Your task to perform on an android device: Open Android settings Image 0: 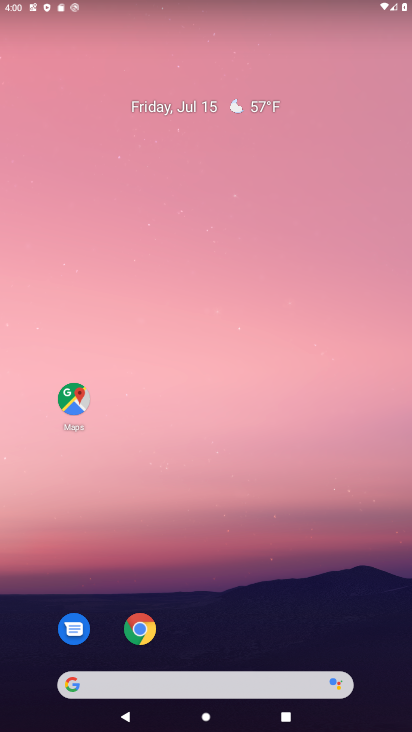
Step 0: press home button
Your task to perform on an android device: Open Android settings Image 1: 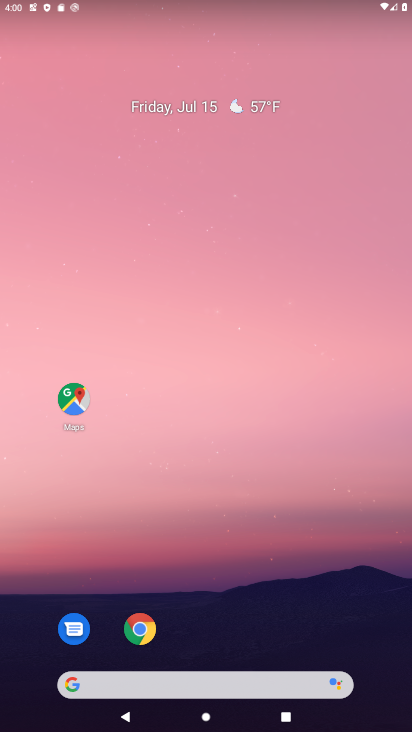
Step 1: drag from (280, 562) to (317, 56)
Your task to perform on an android device: Open Android settings Image 2: 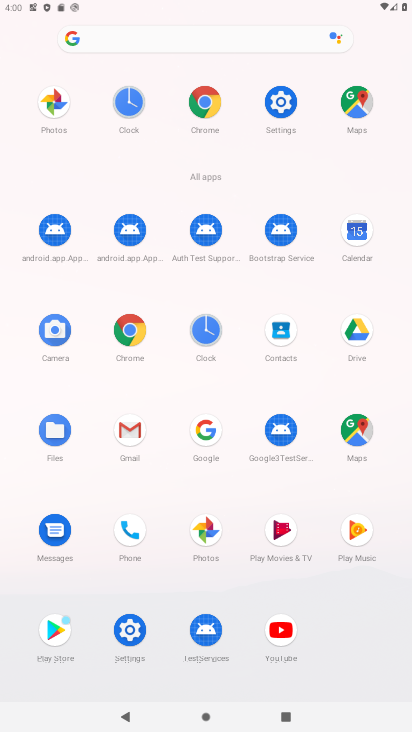
Step 2: click (287, 94)
Your task to perform on an android device: Open Android settings Image 3: 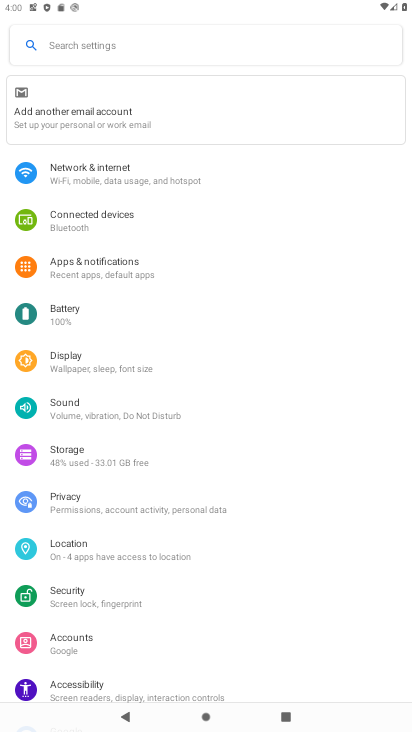
Step 3: task complete